Your task to perform on an android device: search for starred emails in the gmail app Image 0: 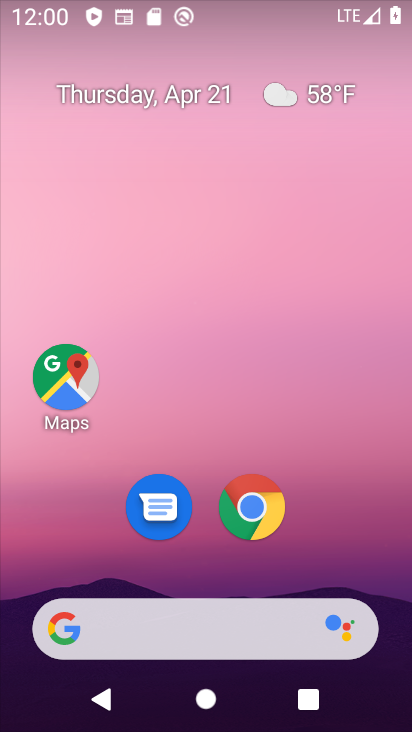
Step 0: drag from (343, 543) to (373, 127)
Your task to perform on an android device: search for starred emails in the gmail app Image 1: 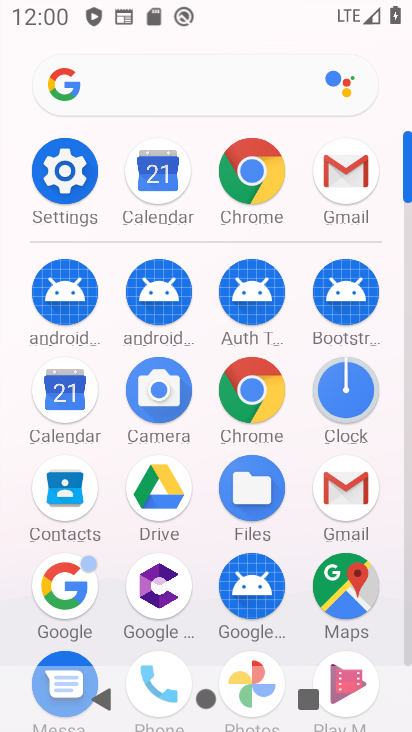
Step 1: click (335, 493)
Your task to perform on an android device: search for starred emails in the gmail app Image 2: 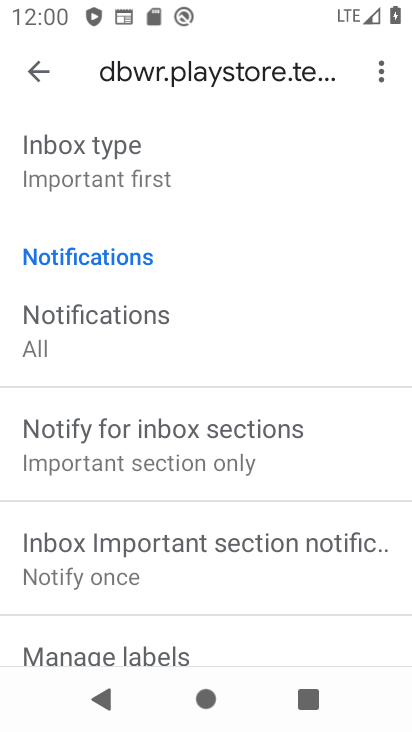
Step 2: click (47, 72)
Your task to perform on an android device: search for starred emails in the gmail app Image 3: 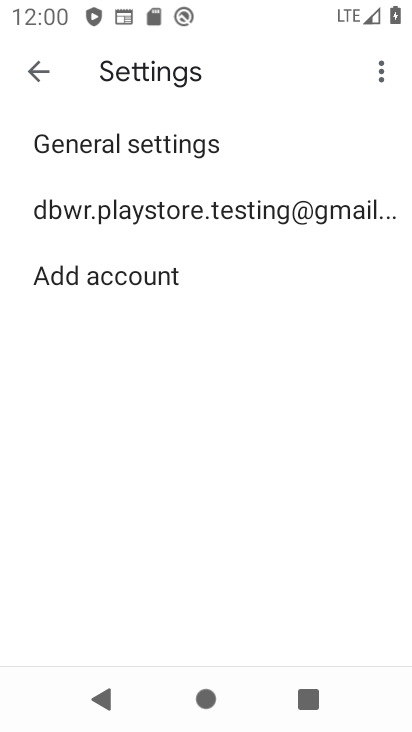
Step 3: click (47, 72)
Your task to perform on an android device: search for starred emails in the gmail app Image 4: 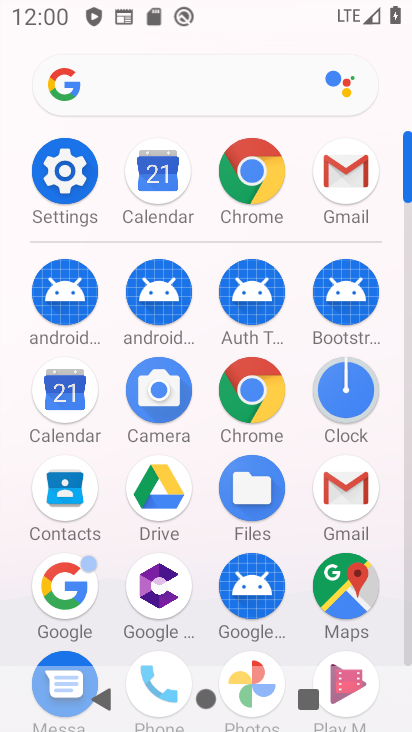
Step 4: click (331, 504)
Your task to perform on an android device: search for starred emails in the gmail app Image 5: 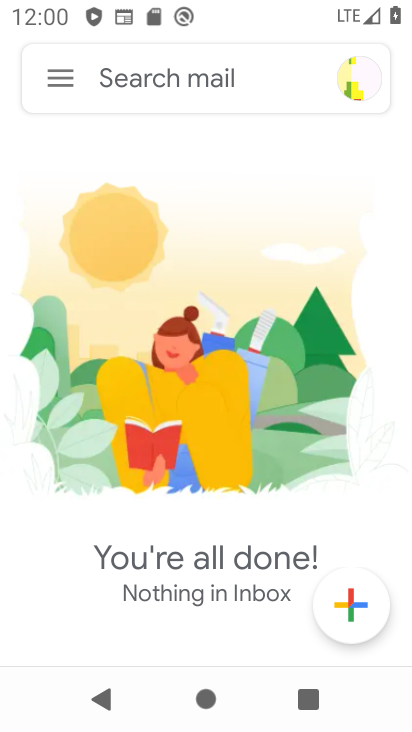
Step 5: click (62, 66)
Your task to perform on an android device: search for starred emails in the gmail app Image 6: 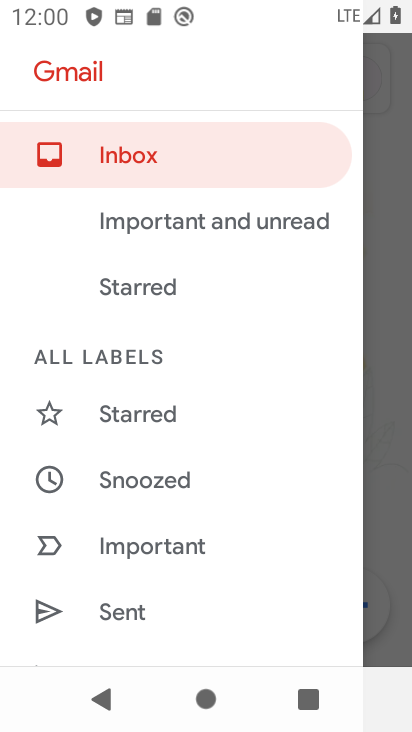
Step 6: click (153, 408)
Your task to perform on an android device: search for starred emails in the gmail app Image 7: 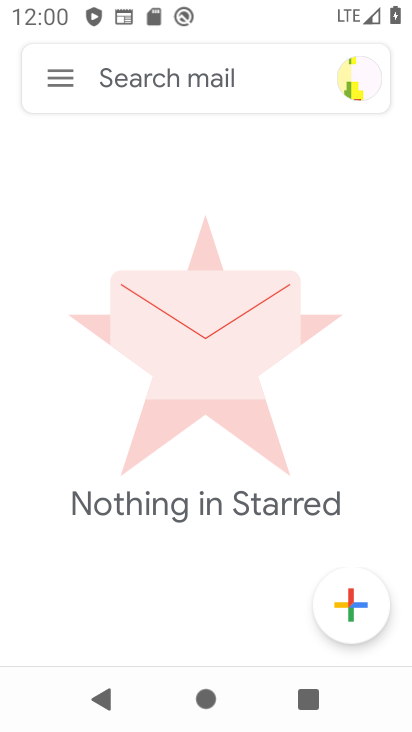
Step 7: task complete